Your task to perform on an android device: Go to Wikipedia Image 0: 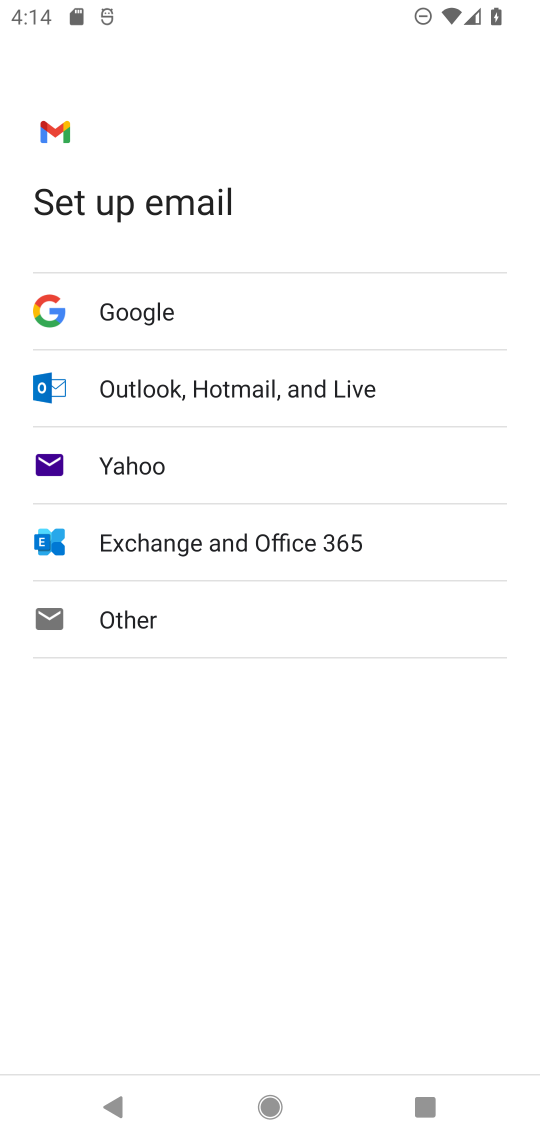
Step 0: press home button
Your task to perform on an android device: Go to Wikipedia Image 1: 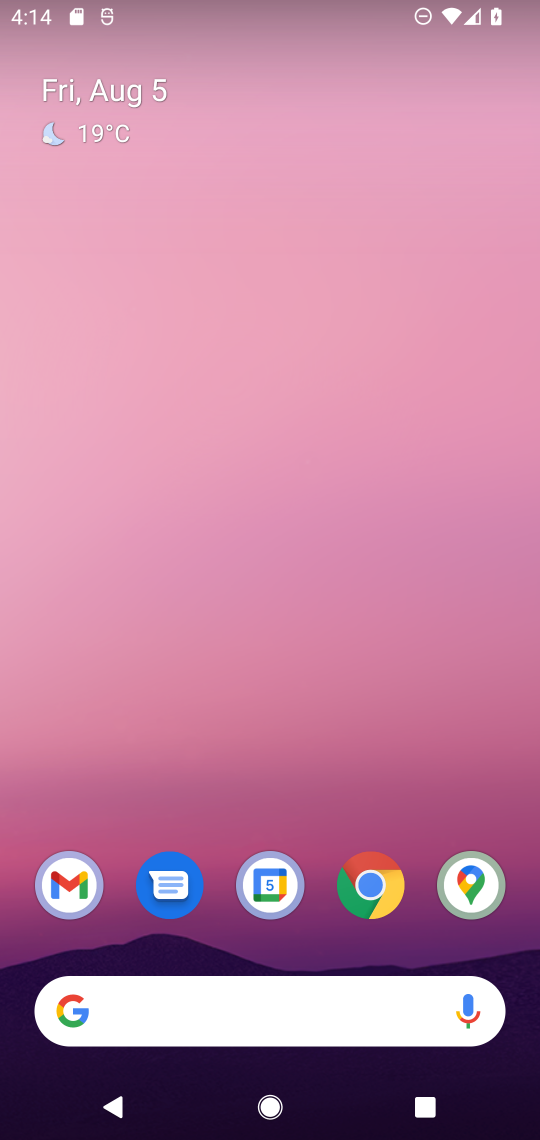
Step 1: click (375, 888)
Your task to perform on an android device: Go to Wikipedia Image 2: 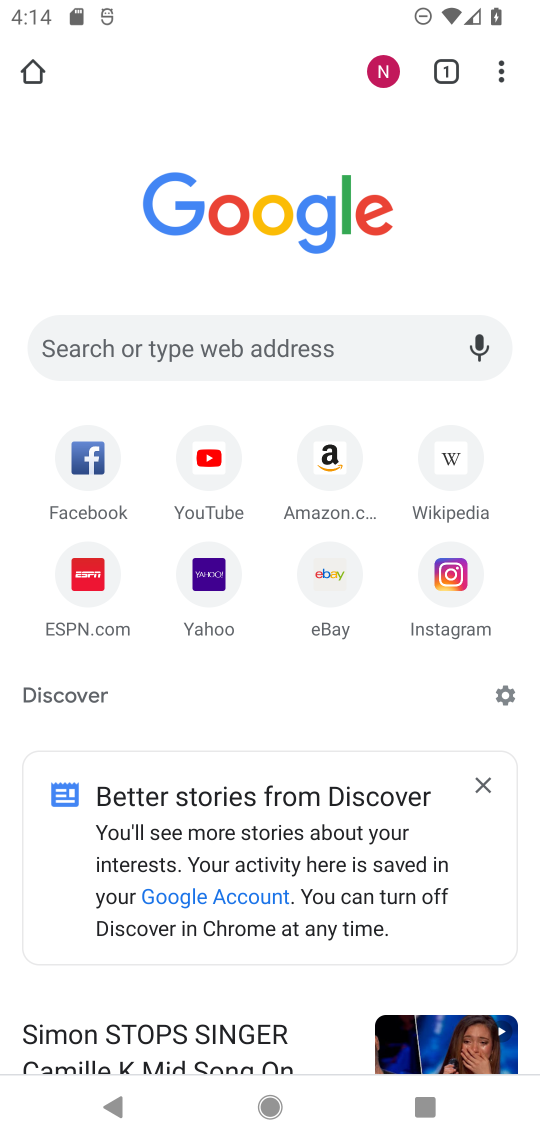
Step 2: click (446, 459)
Your task to perform on an android device: Go to Wikipedia Image 3: 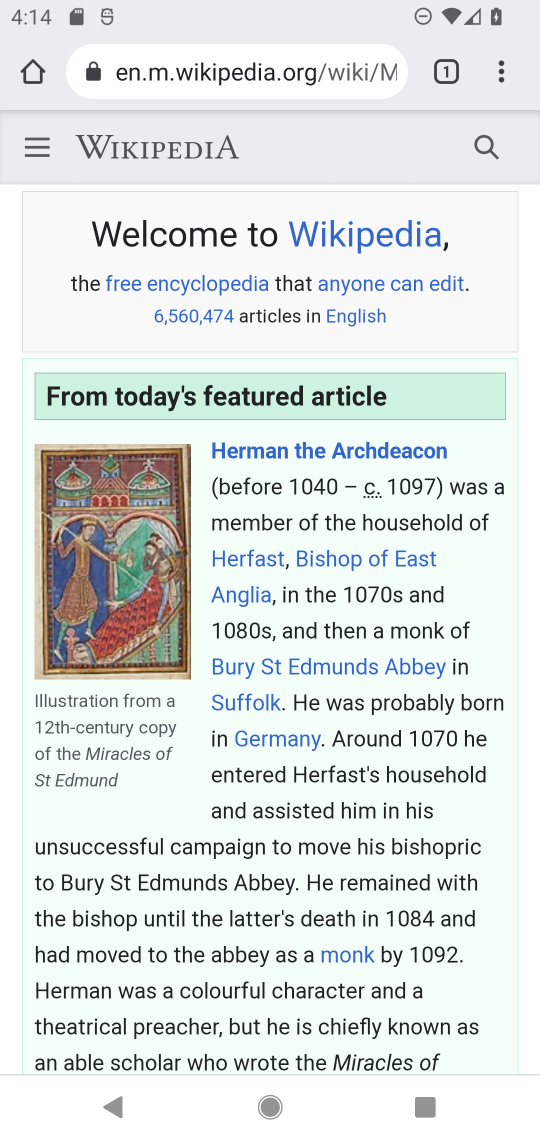
Step 3: task complete